Your task to perform on an android device: Go to location settings Image 0: 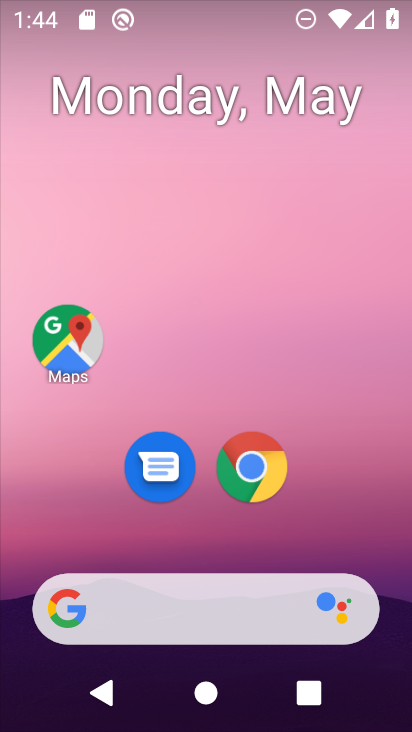
Step 0: drag from (102, 573) to (273, 14)
Your task to perform on an android device: Go to location settings Image 1: 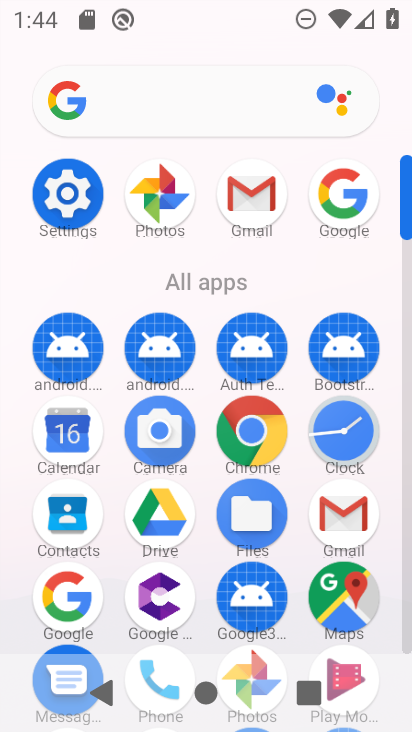
Step 1: drag from (119, 560) to (195, 298)
Your task to perform on an android device: Go to location settings Image 2: 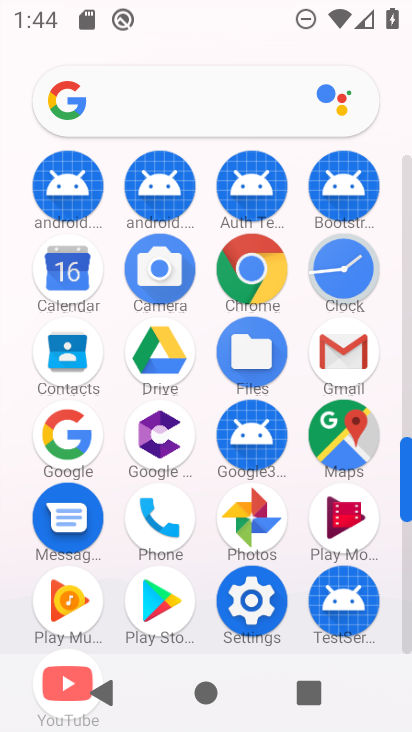
Step 2: click (263, 602)
Your task to perform on an android device: Go to location settings Image 3: 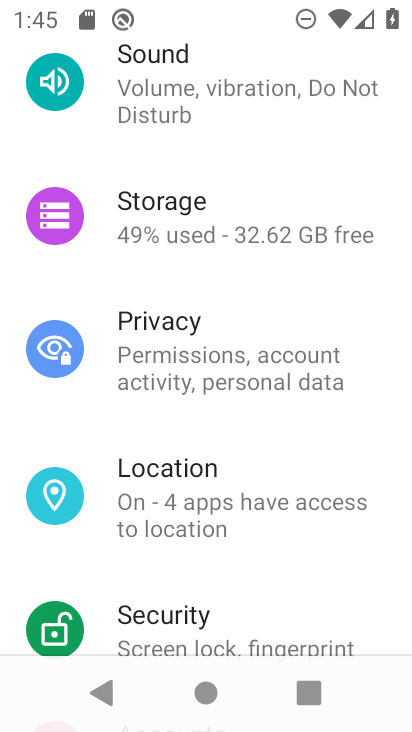
Step 3: click (184, 511)
Your task to perform on an android device: Go to location settings Image 4: 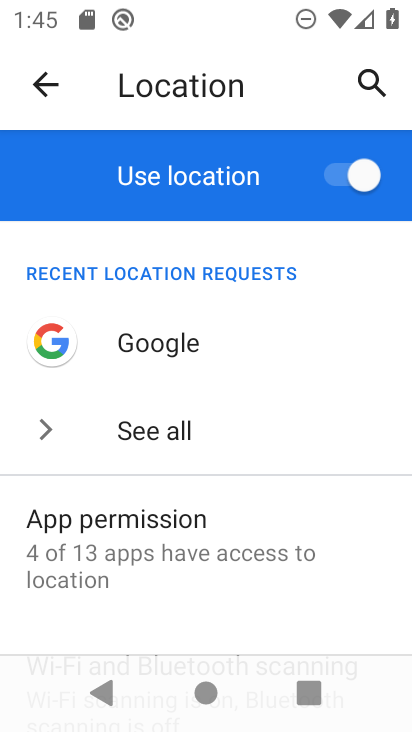
Step 4: task complete